Your task to perform on an android device: Open notification settings Image 0: 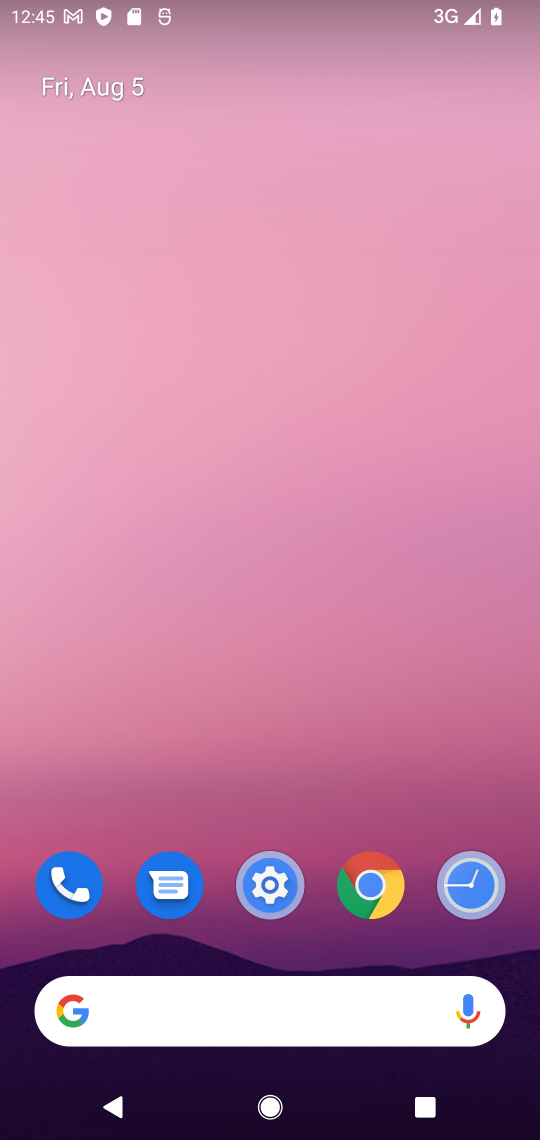
Step 0: click (258, 877)
Your task to perform on an android device: Open notification settings Image 1: 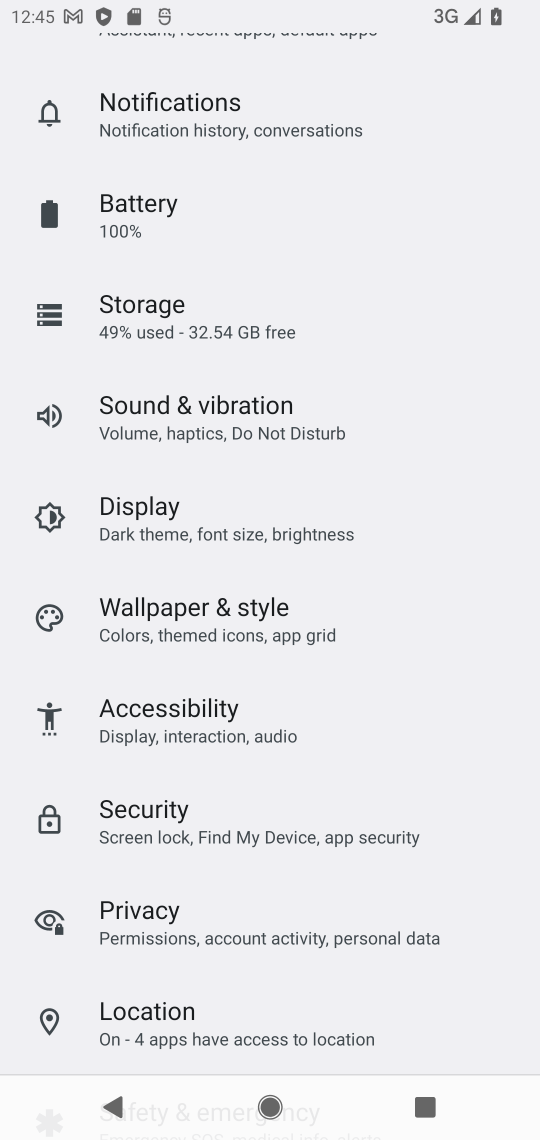
Step 1: click (259, 130)
Your task to perform on an android device: Open notification settings Image 2: 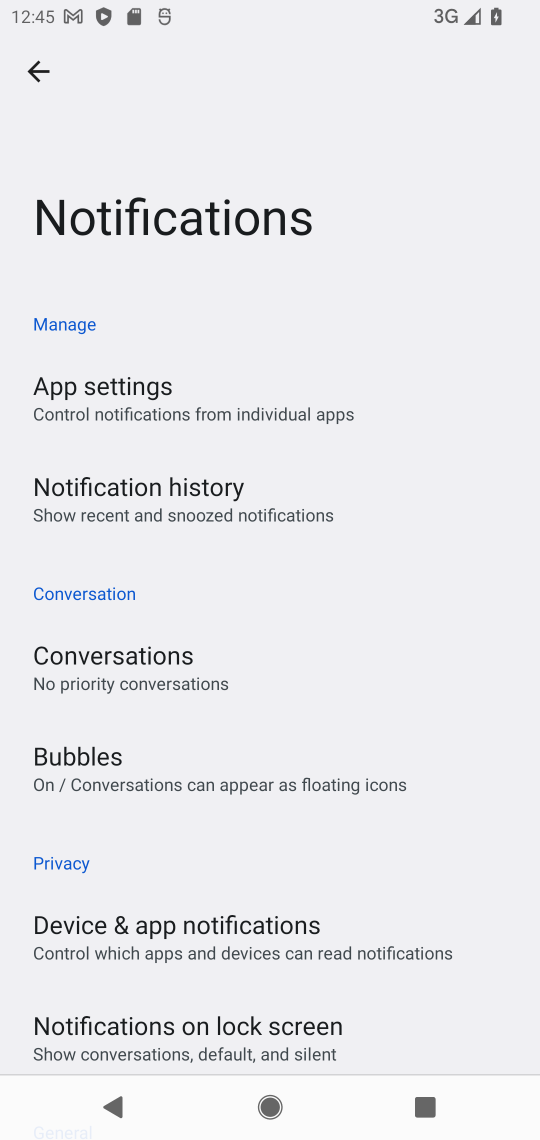
Step 2: task complete